Your task to perform on an android device: Turn on the flashlight Image 0: 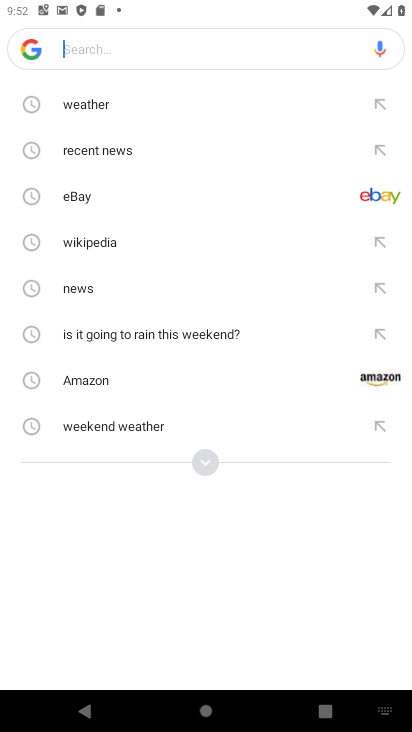
Step 0: press back button
Your task to perform on an android device: Turn on the flashlight Image 1: 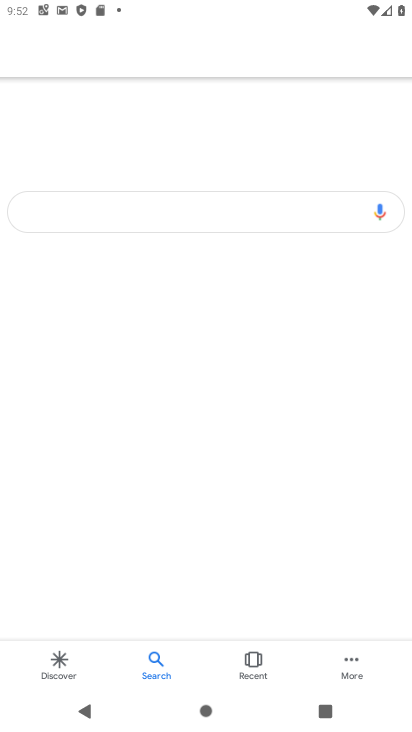
Step 1: press back button
Your task to perform on an android device: Turn on the flashlight Image 2: 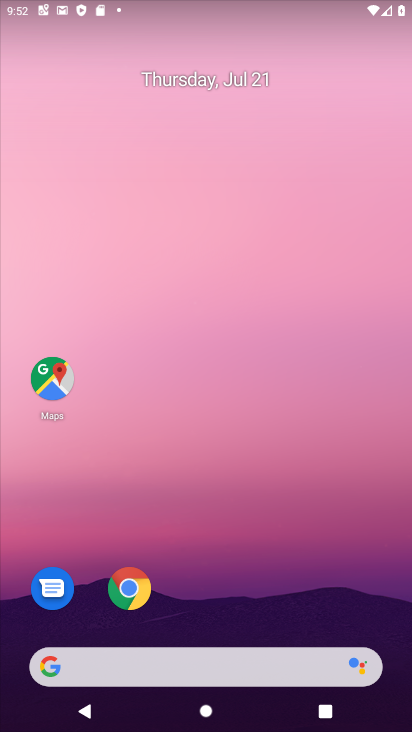
Step 2: drag from (235, 614) to (311, 0)
Your task to perform on an android device: Turn on the flashlight Image 3: 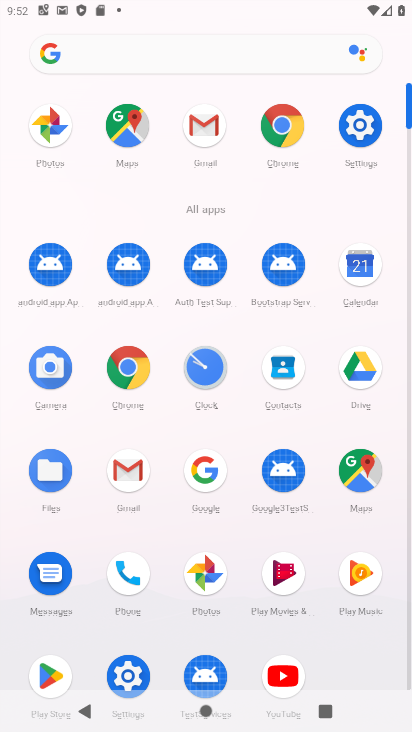
Step 3: click (364, 118)
Your task to perform on an android device: Turn on the flashlight Image 4: 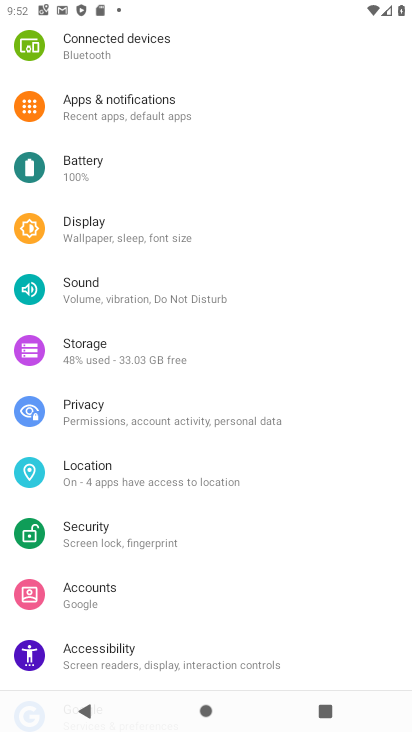
Step 4: drag from (210, 164) to (158, 663)
Your task to perform on an android device: Turn on the flashlight Image 5: 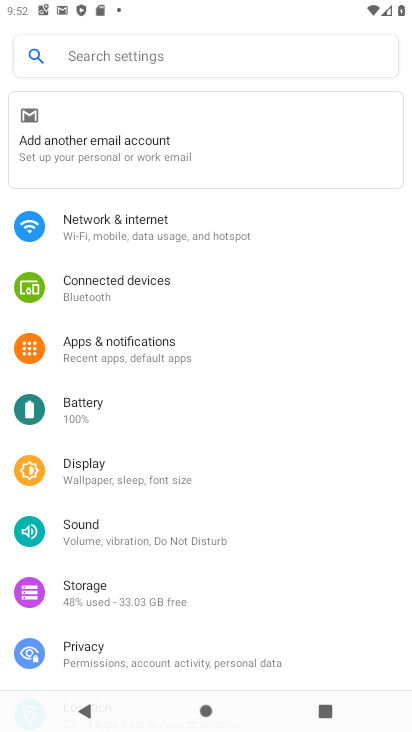
Step 5: click (139, 61)
Your task to perform on an android device: Turn on the flashlight Image 6: 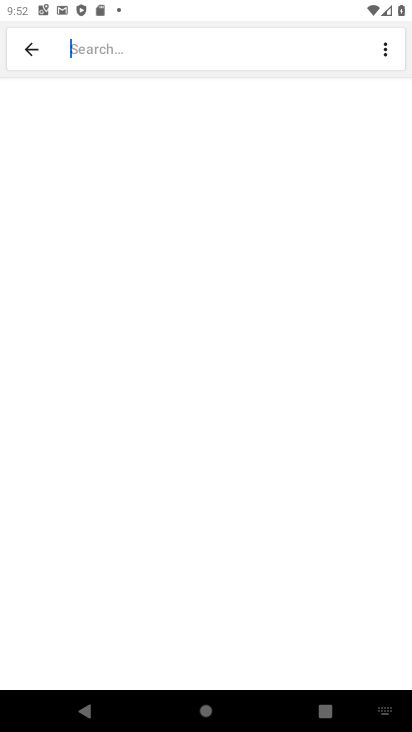
Step 6: type "flashlight"
Your task to perform on an android device: Turn on the flashlight Image 7: 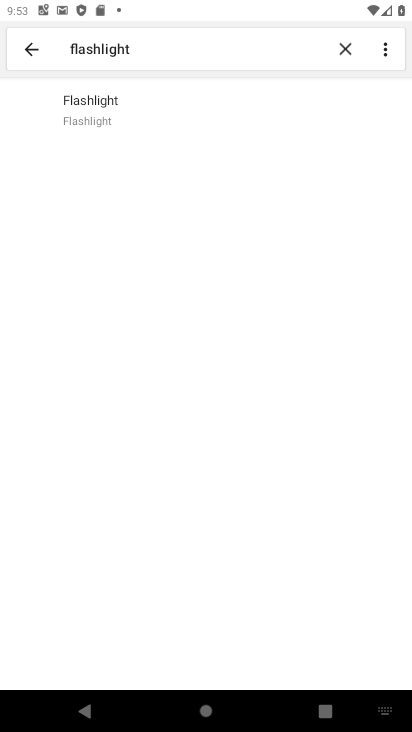
Step 7: click (100, 100)
Your task to perform on an android device: Turn on the flashlight Image 8: 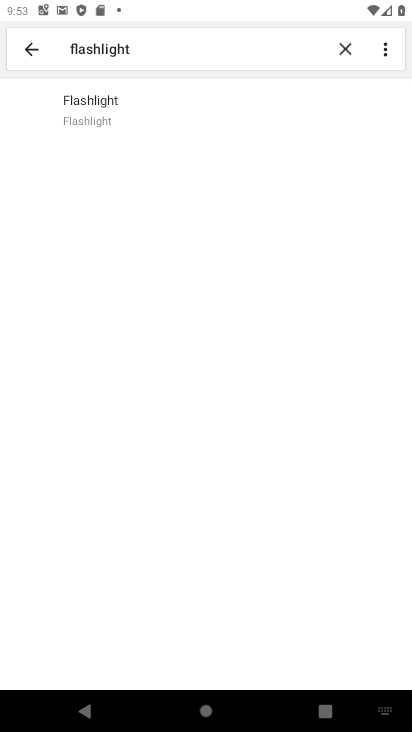
Step 8: click (83, 107)
Your task to perform on an android device: Turn on the flashlight Image 9: 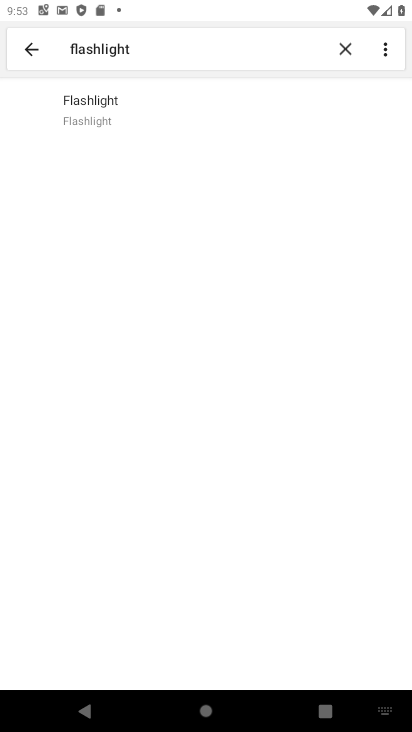
Step 9: task complete